Your task to perform on an android device: Search for the Nintendo Switch. Image 0: 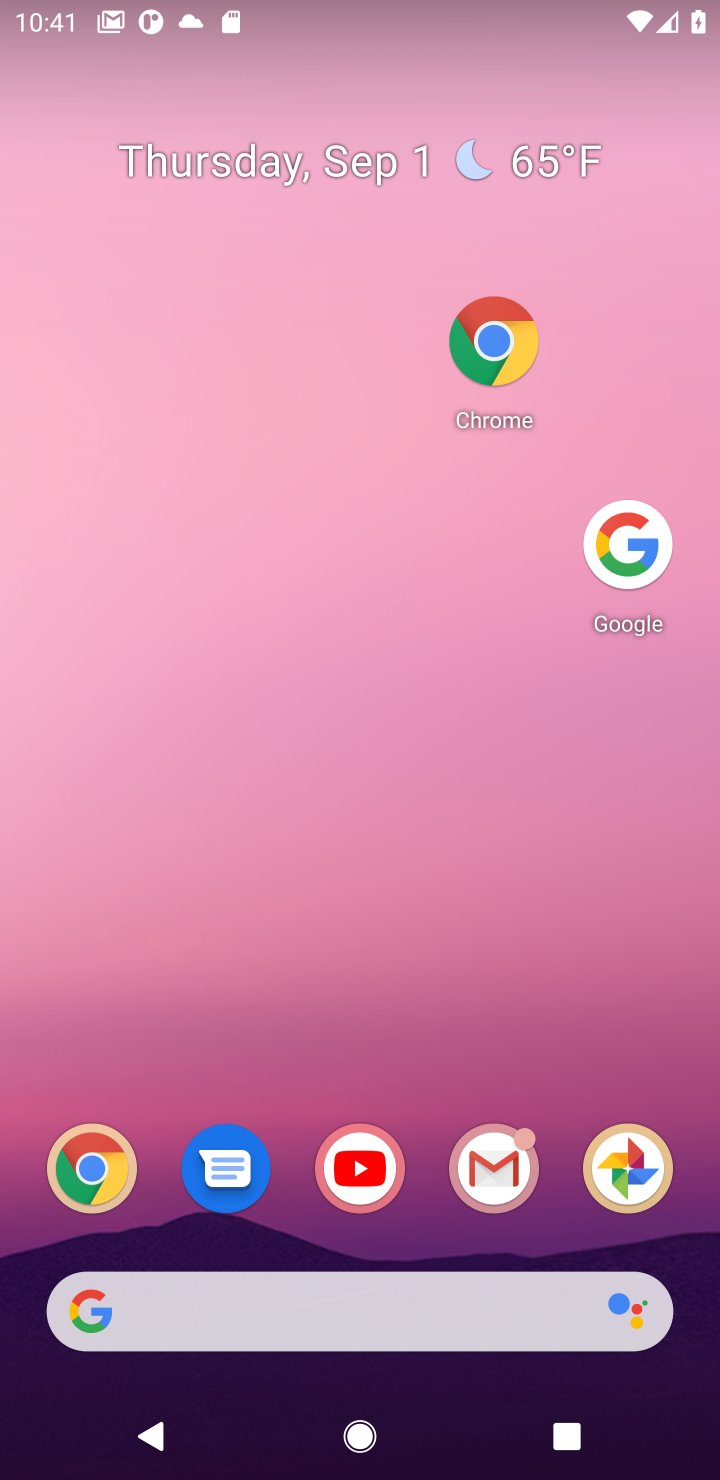
Step 0: click (236, 268)
Your task to perform on an android device: Search for the Nintendo Switch. Image 1: 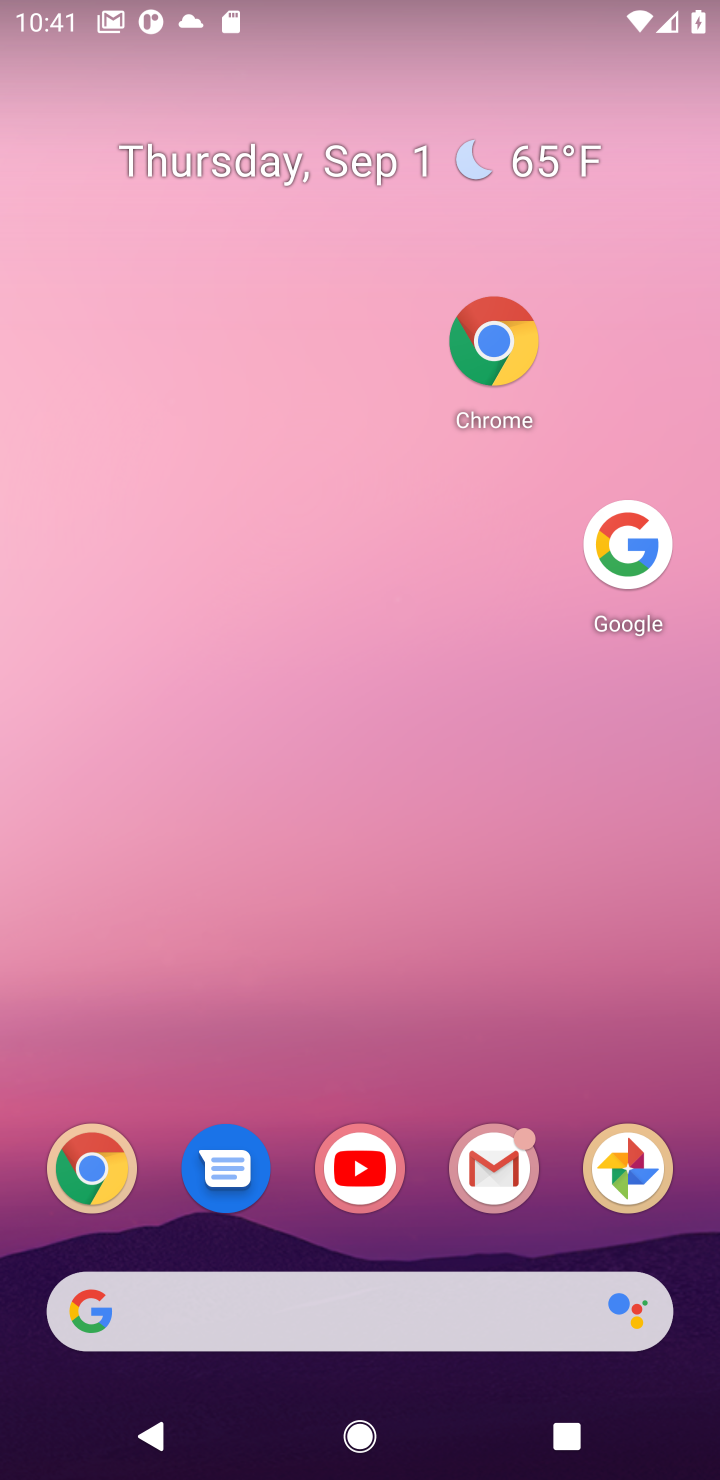
Step 1: click (610, 533)
Your task to perform on an android device: Search for the Nintendo Switch. Image 2: 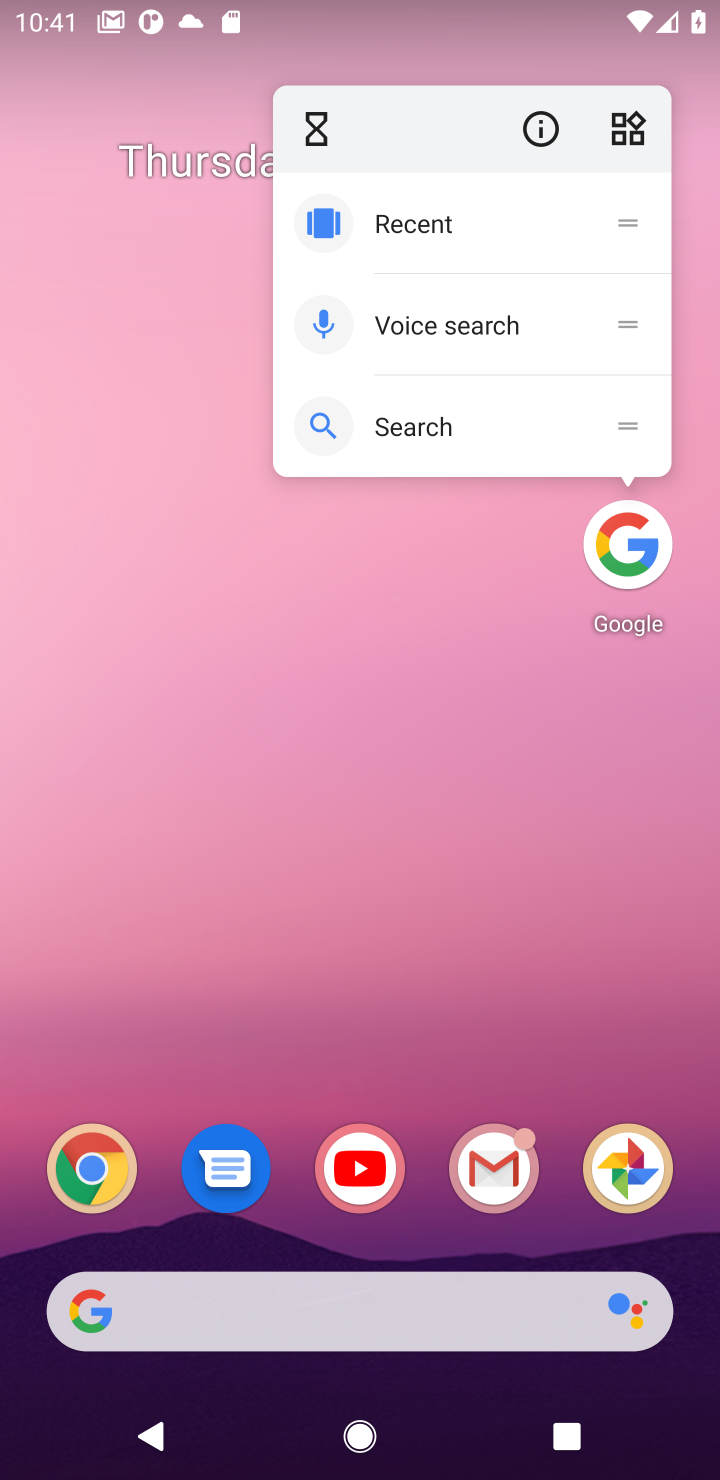
Step 2: click (629, 511)
Your task to perform on an android device: Search for the Nintendo Switch. Image 3: 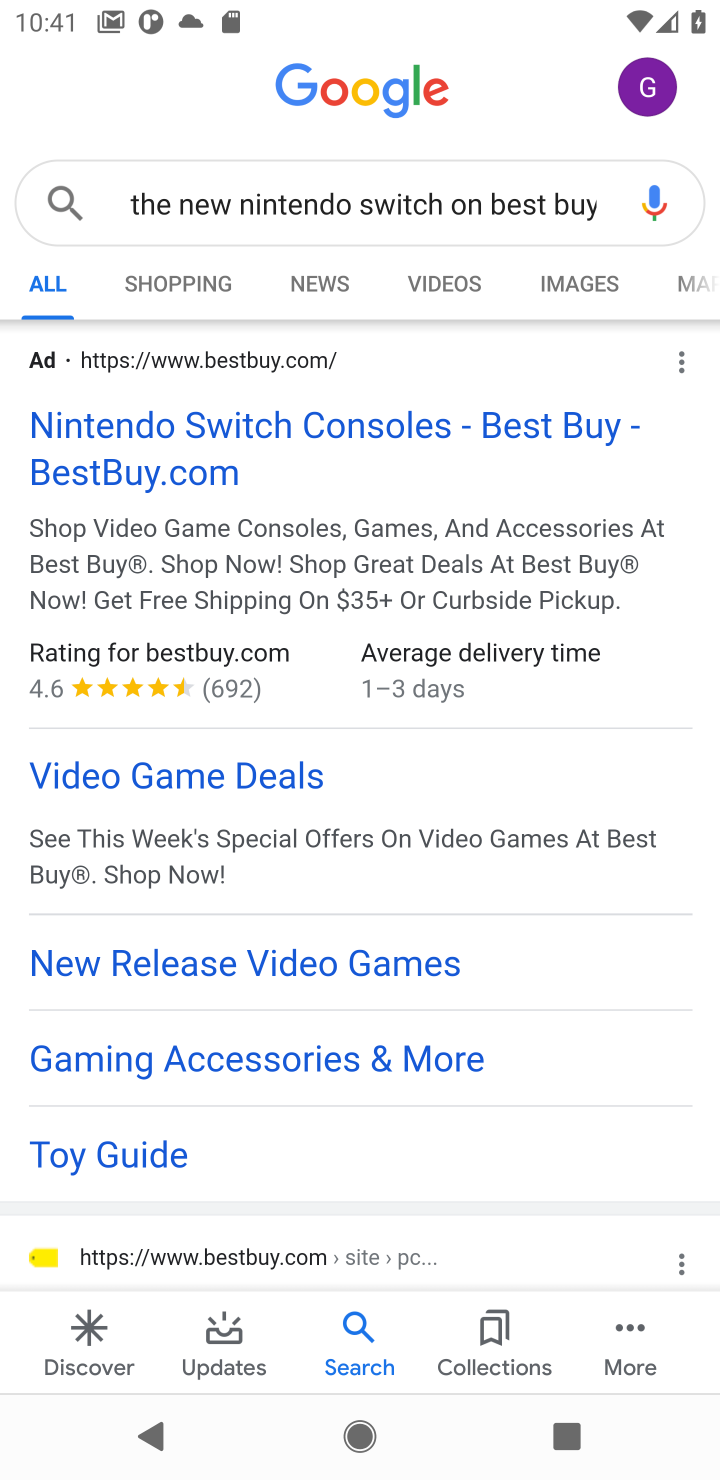
Step 3: click (629, 552)
Your task to perform on an android device: Search for the Nintendo Switch. Image 4: 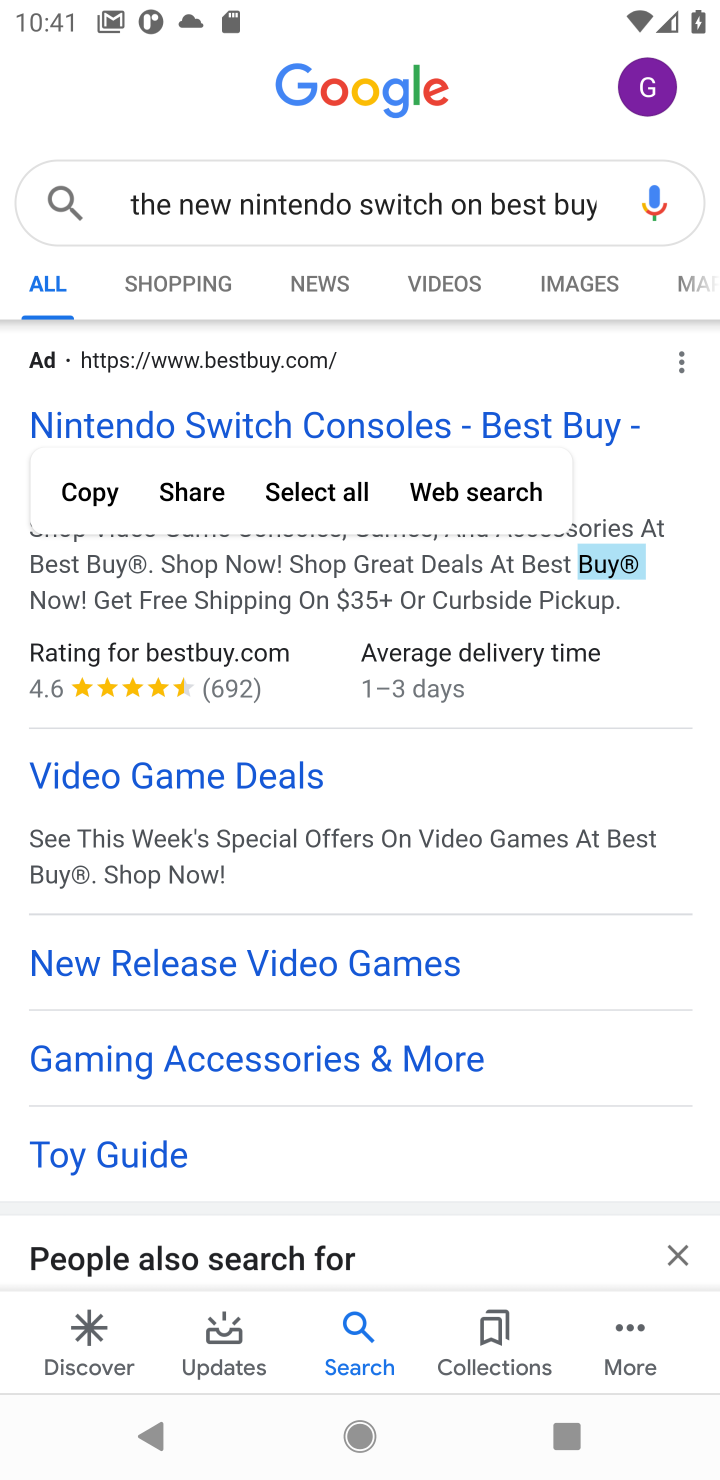
Step 4: click (428, 180)
Your task to perform on an android device: Search for the Nintendo Switch. Image 5: 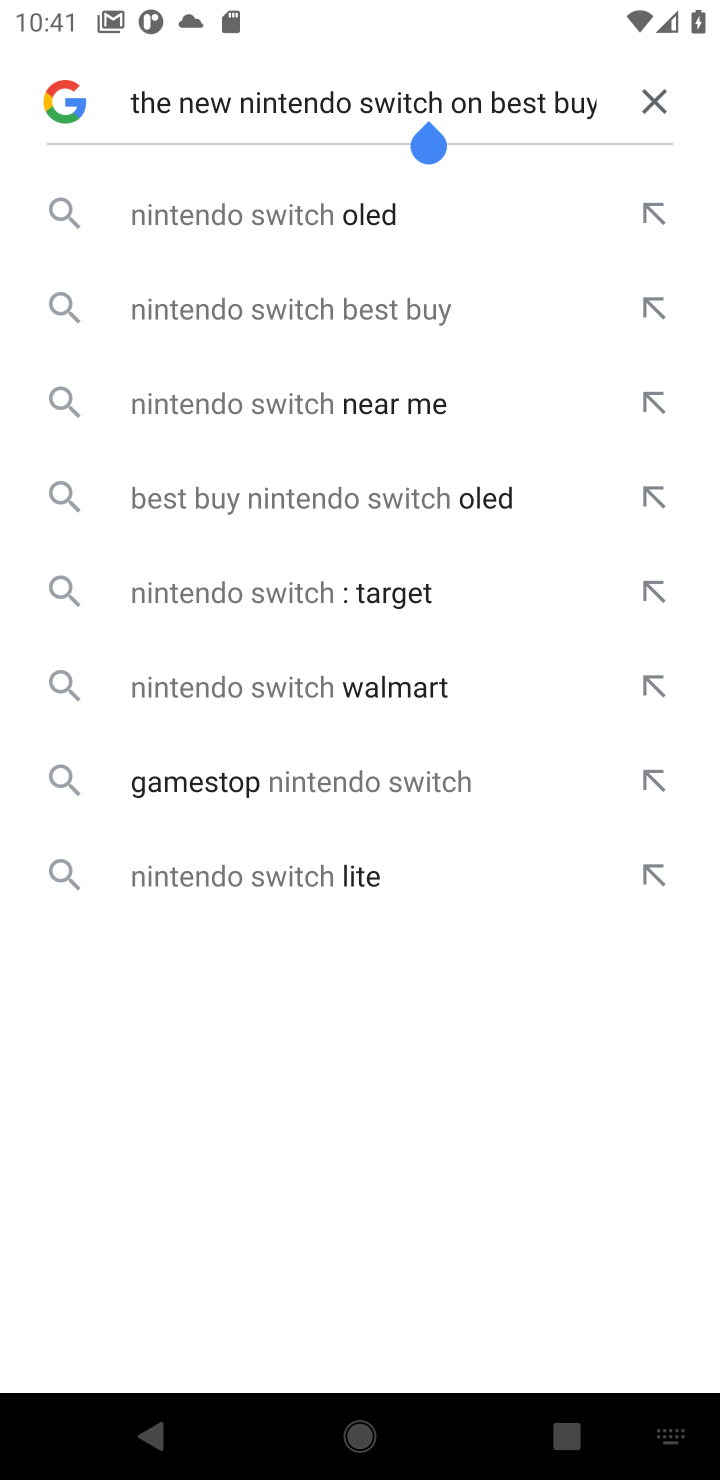
Step 5: click (659, 99)
Your task to perform on an android device: Search for the Nintendo Switch. Image 6: 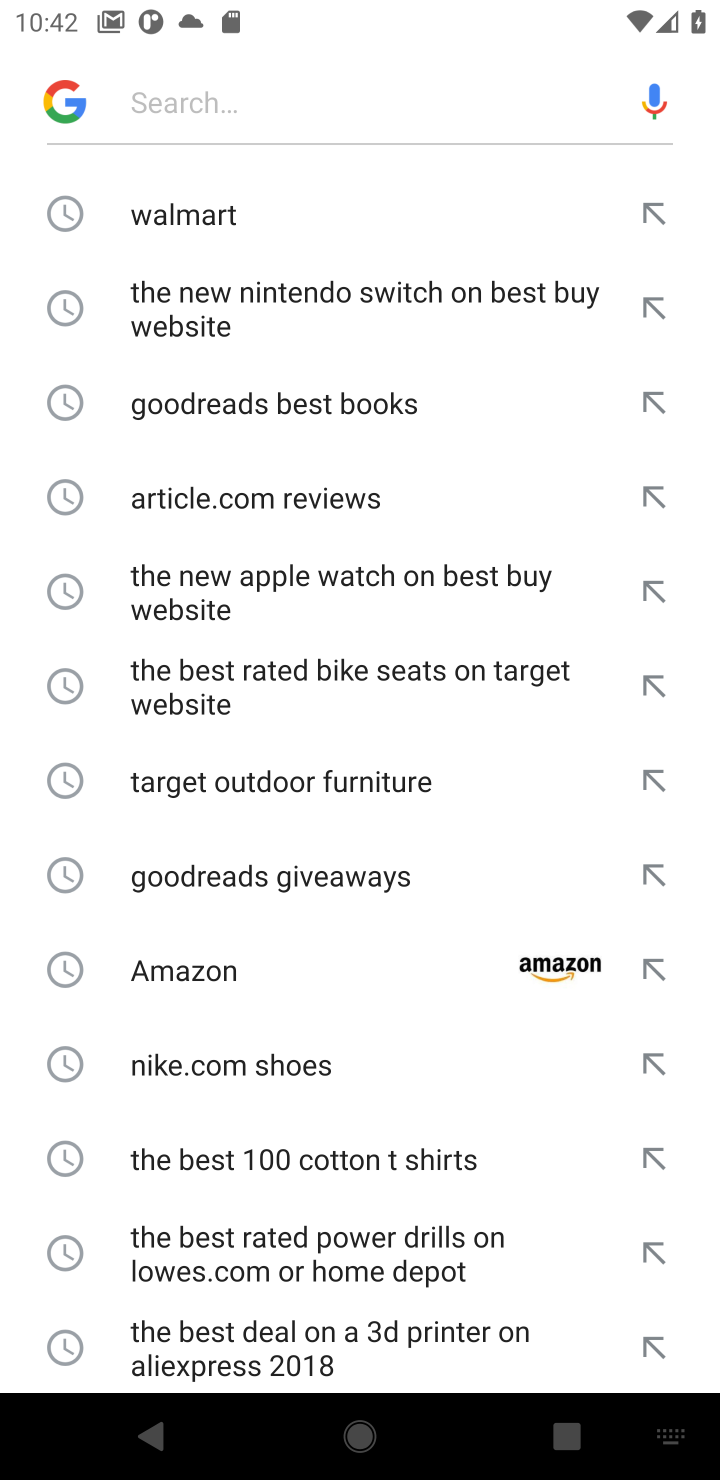
Step 6: click (263, 106)
Your task to perform on an android device: Search for the Nintendo Switch. Image 7: 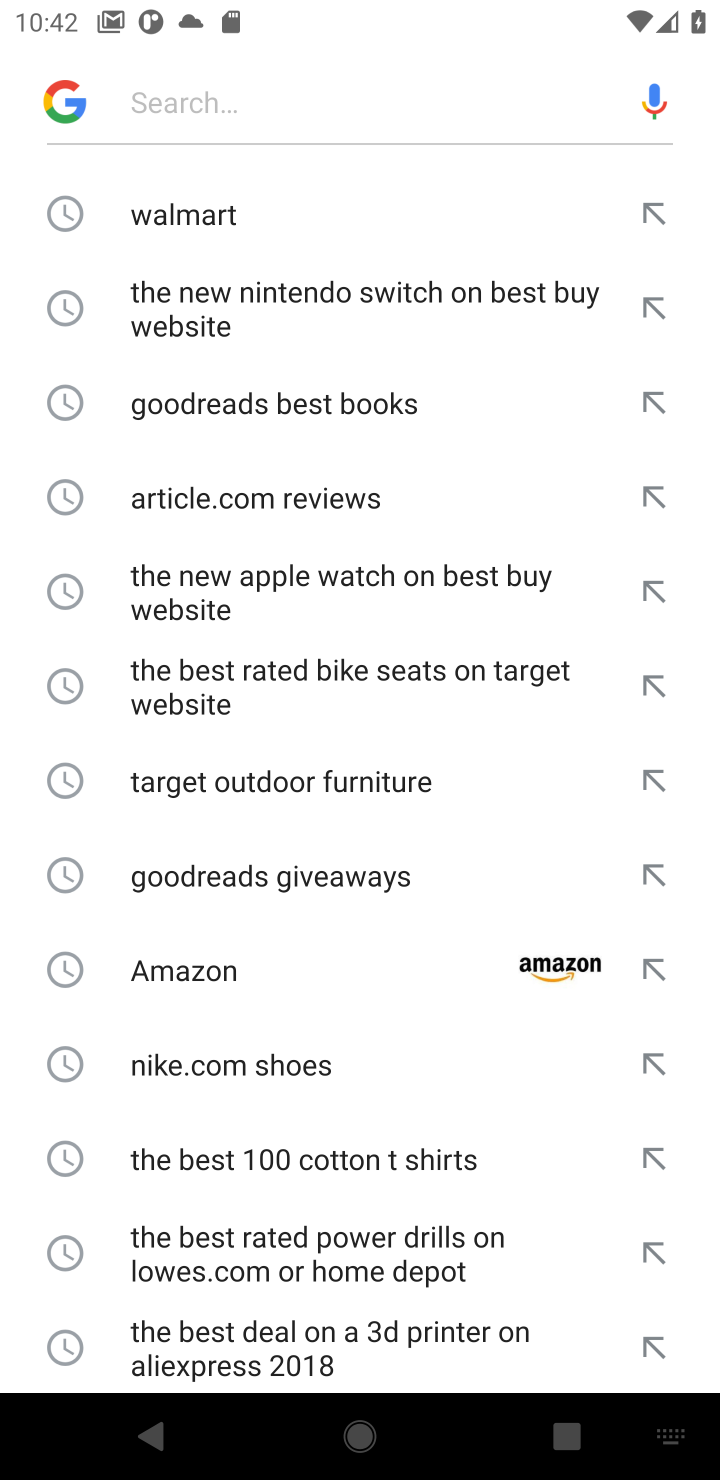
Step 7: type "the Nintendo Switch "
Your task to perform on an android device: Search for the Nintendo Switch. Image 8: 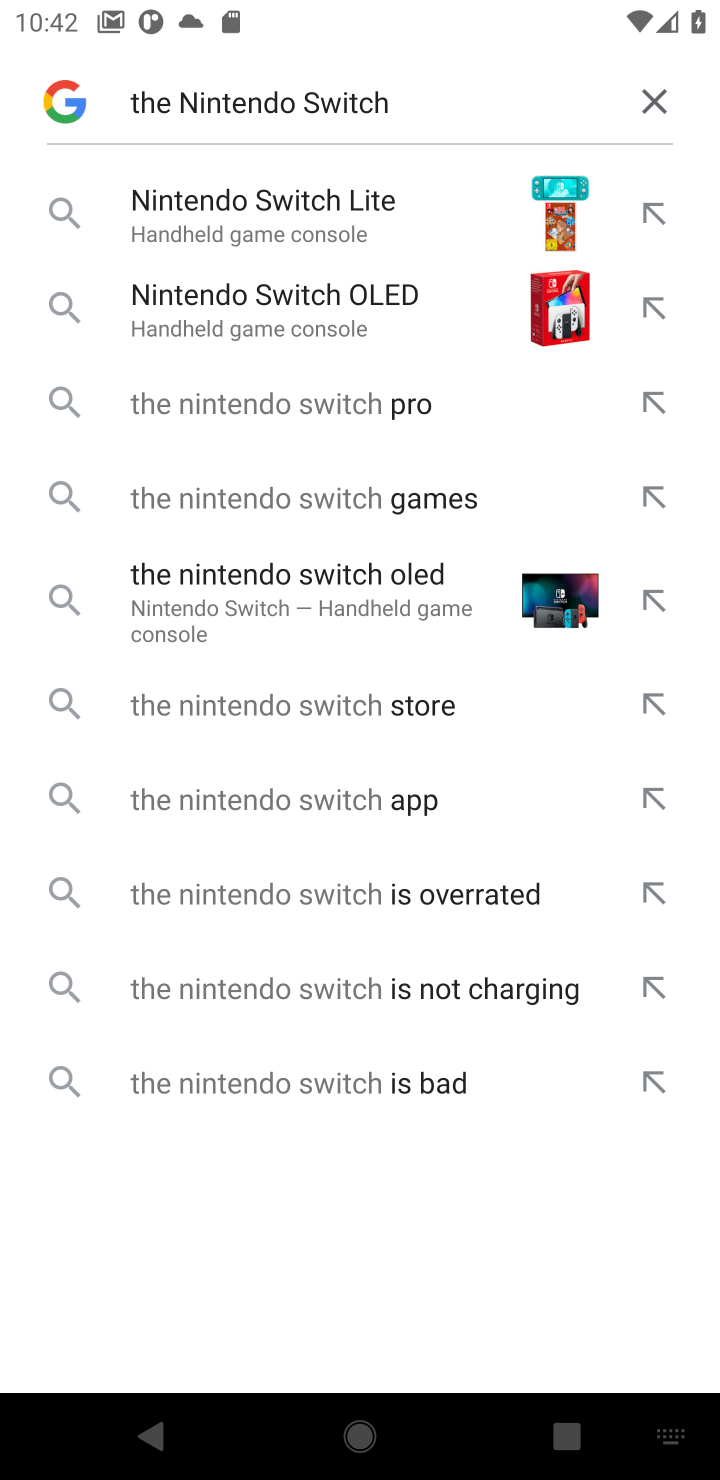
Step 8: click (300, 207)
Your task to perform on an android device: Search for the Nintendo Switch. Image 9: 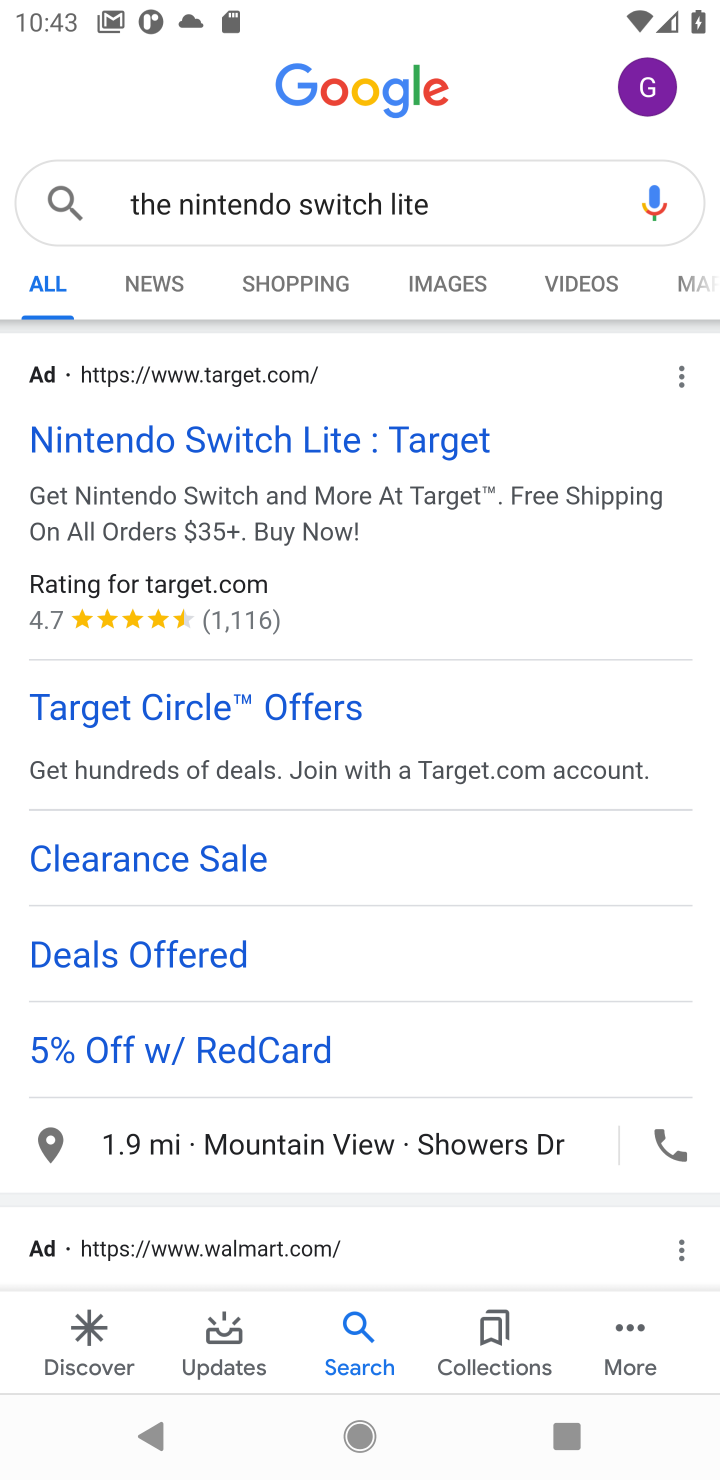
Step 9: click (325, 428)
Your task to perform on an android device: Search for the Nintendo Switch. Image 10: 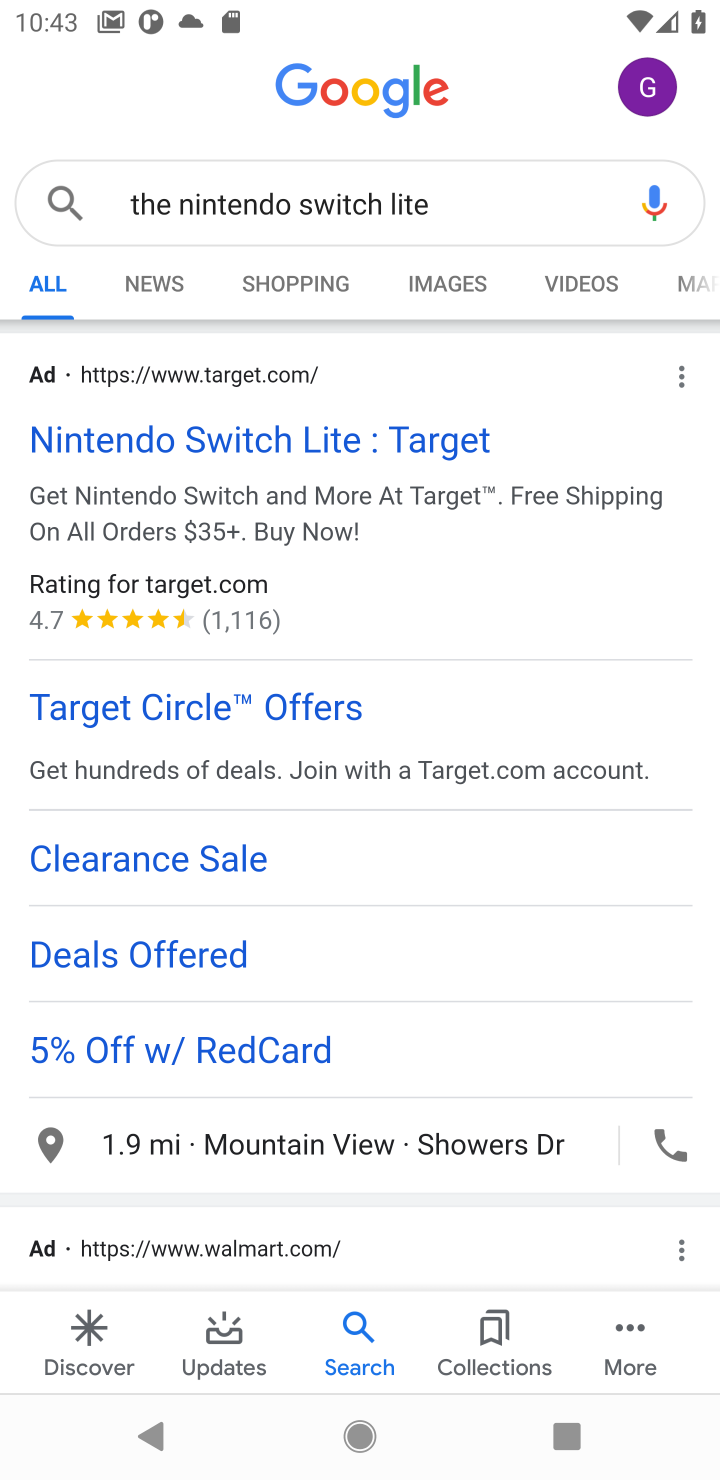
Step 10: click (365, 428)
Your task to perform on an android device: Search for the Nintendo Switch. Image 11: 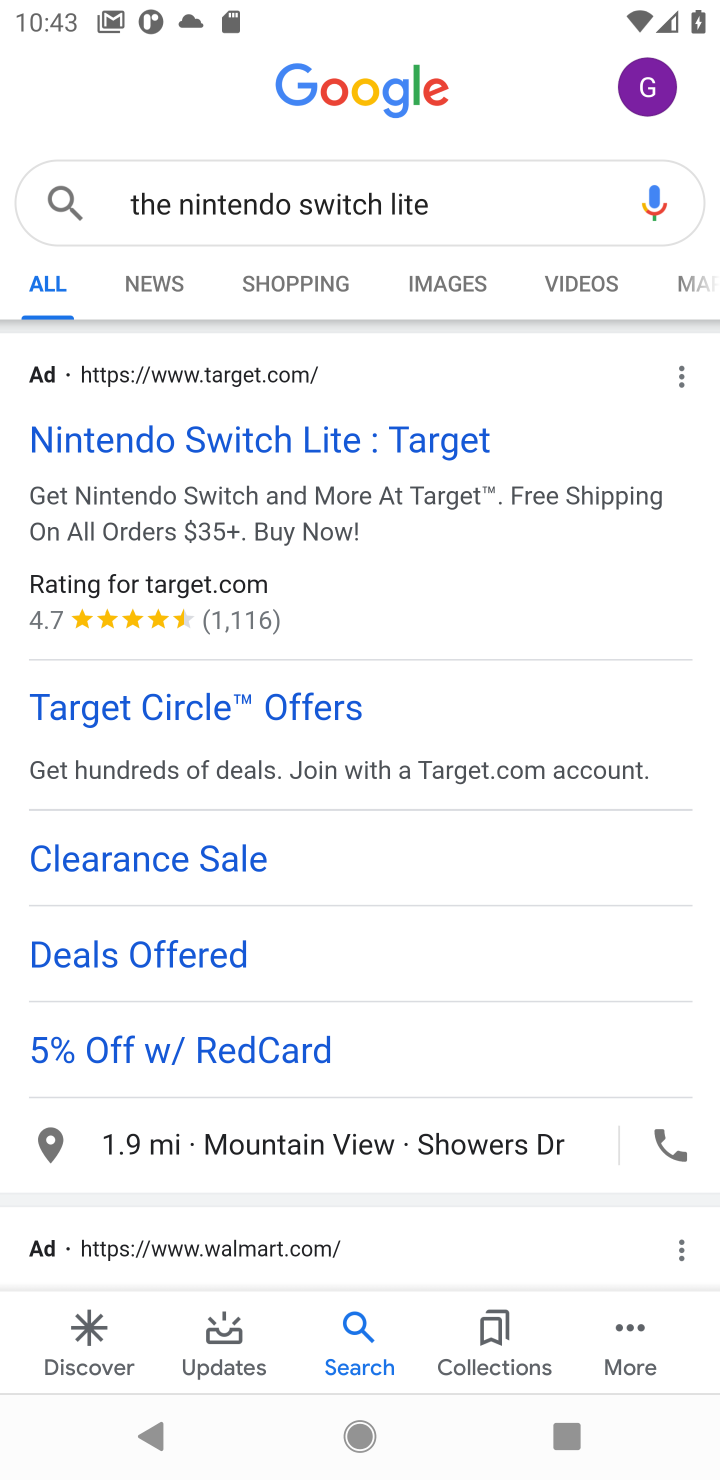
Step 11: task complete